Your task to perform on an android device: turn on bluetooth scan Image 0: 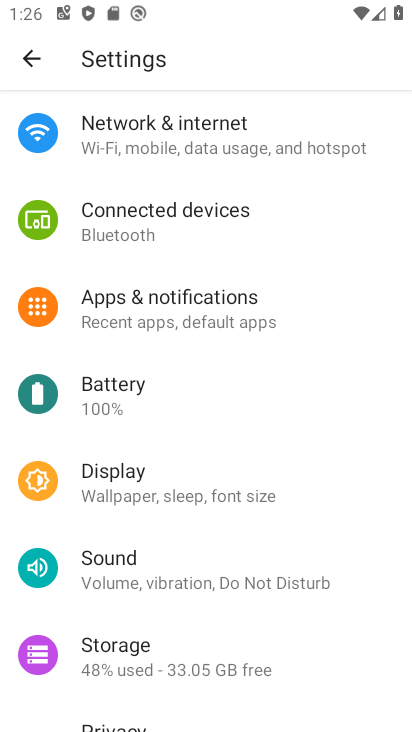
Step 0: drag from (157, 649) to (221, 281)
Your task to perform on an android device: turn on bluetooth scan Image 1: 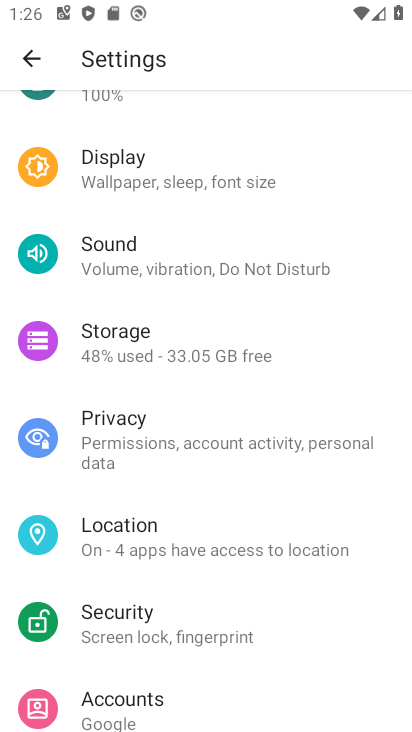
Step 1: click (175, 548)
Your task to perform on an android device: turn on bluetooth scan Image 2: 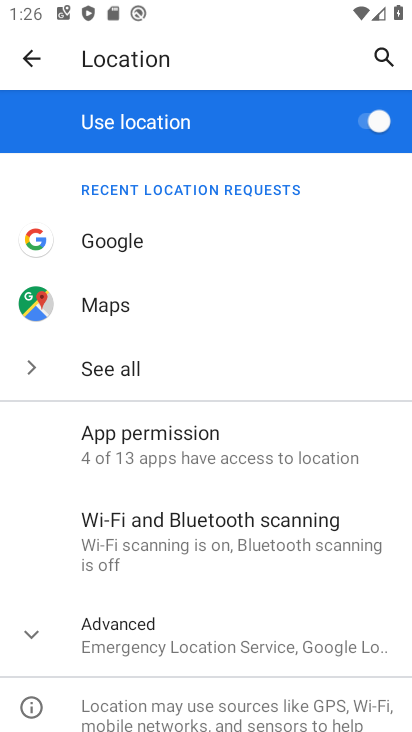
Step 2: click (219, 543)
Your task to perform on an android device: turn on bluetooth scan Image 3: 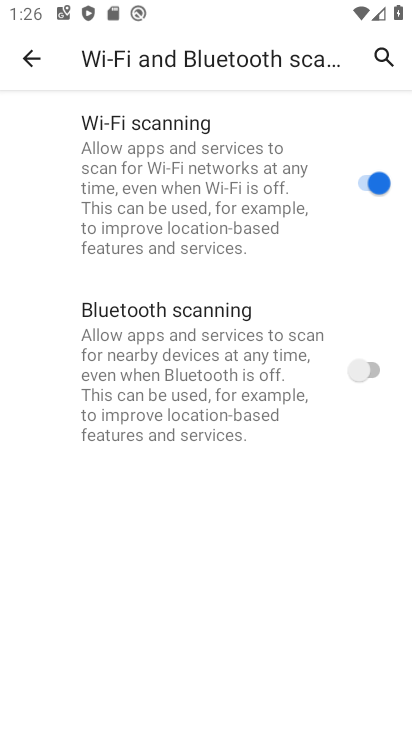
Step 3: click (358, 382)
Your task to perform on an android device: turn on bluetooth scan Image 4: 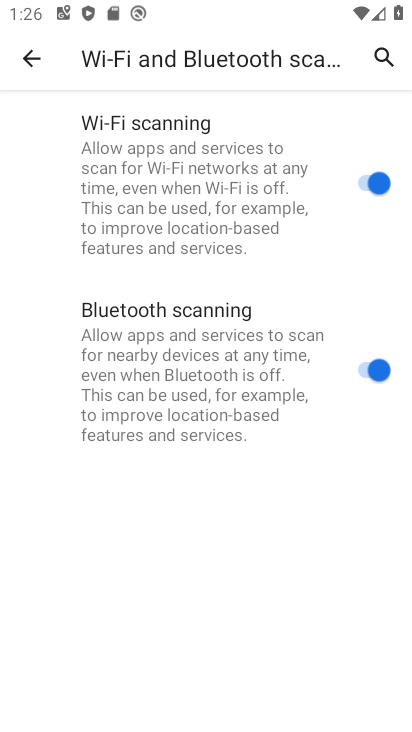
Step 4: task complete